Your task to perform on an android device: Go to internet settings Image 0: 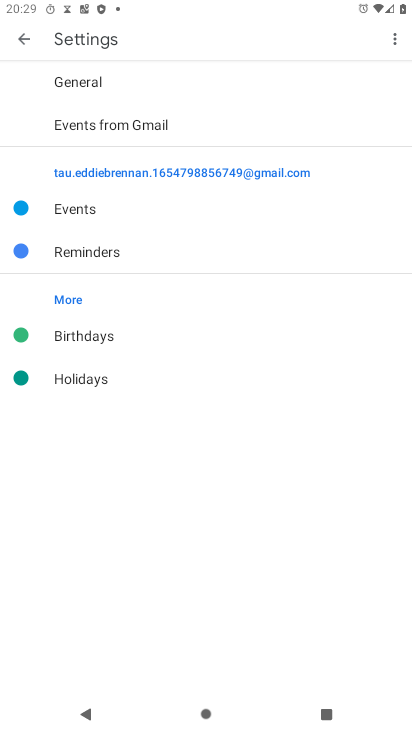
Step 0: press home button
Your task to perform on an android device: Go to internet settings Image 1: 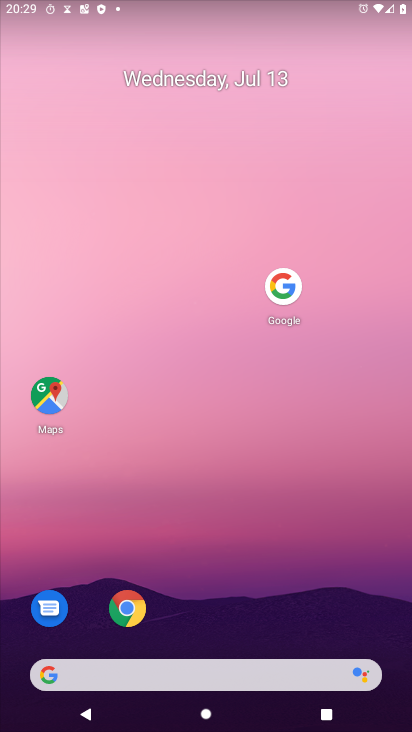
Step 1: drag from (215, 631) to (132, 31)
Your task to perform on an android device: Go to internet settings Image 2: 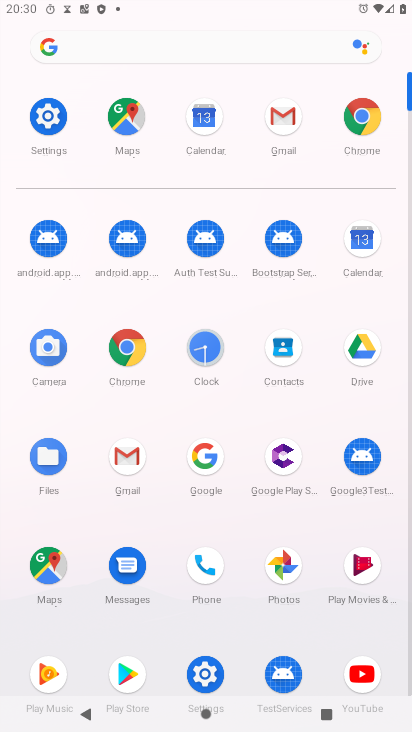
Step 2: click (42, 113)
Your task to perform on an android device: Go to internet settings Image 3: 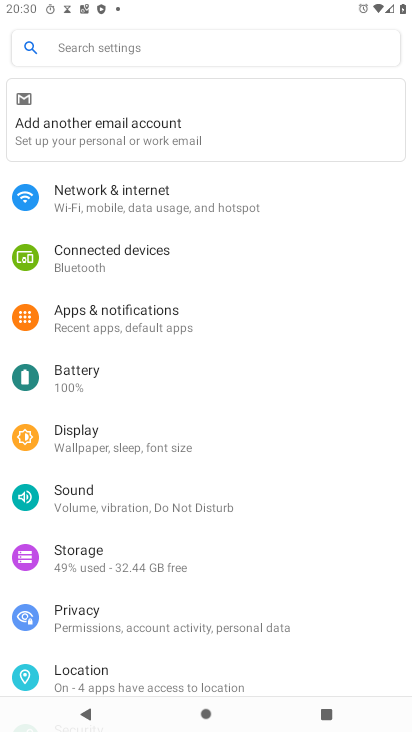
Step 3: click (114, 206)
Your task to perform on an android device: Go to internet settings Image 4: 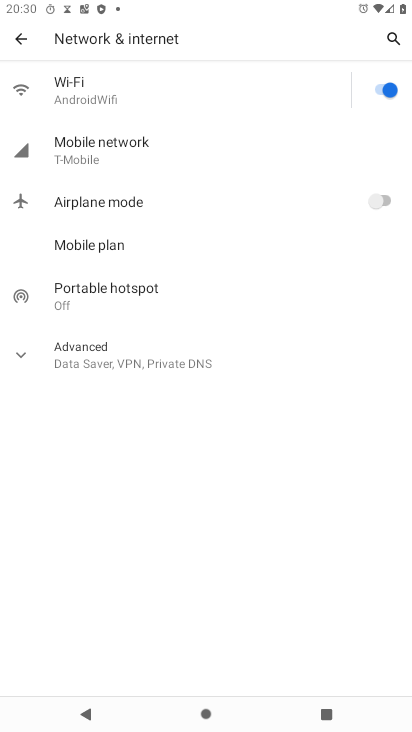
Step 4: click (148, 144)
Your task to perform on an android device: Go to internet settings Image 5: 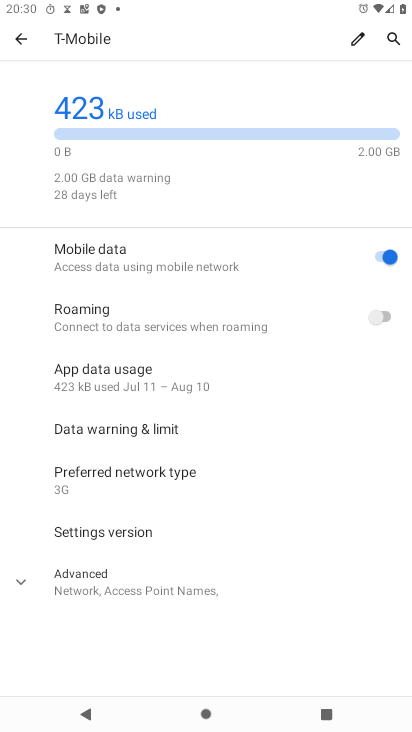
Step 5: task complete